Your task to perform on an android device: set default search engine in the chrome app Image 0: 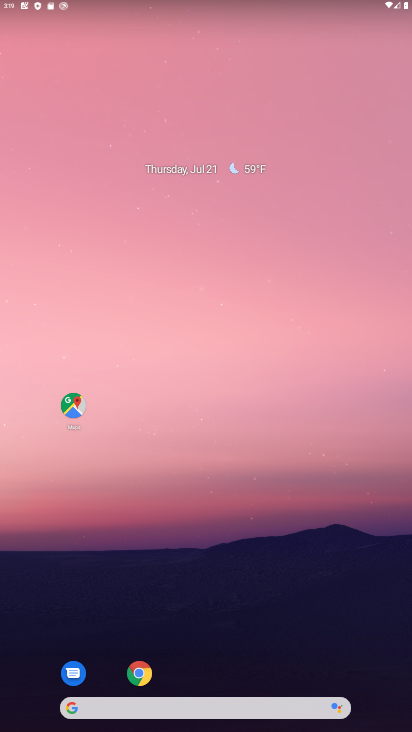
Step 0: click (140, 673)
Your task to perform on an android device: set default search engine in the chrome app Image 1: 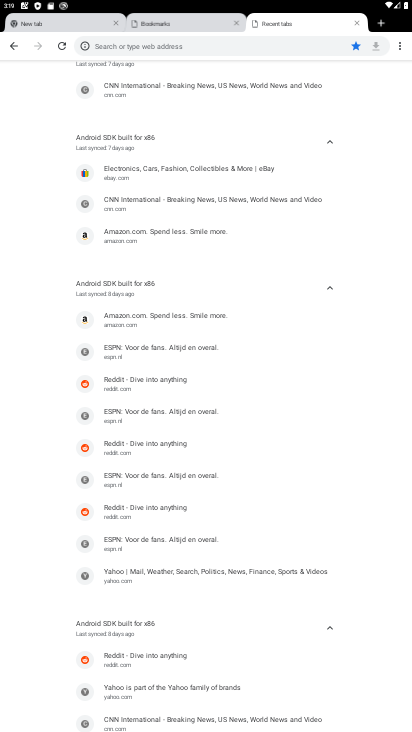
Step 1: click (398, 50)
Your task to perform on an android device: set default search engine in the chrome app Image 2: 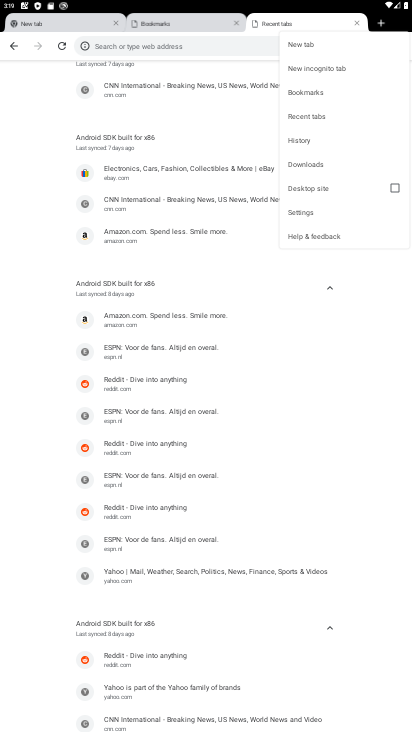
Step 2: click (295, 210)
Your task to perform on an android device: set default search engine in the chrome app Image 3: 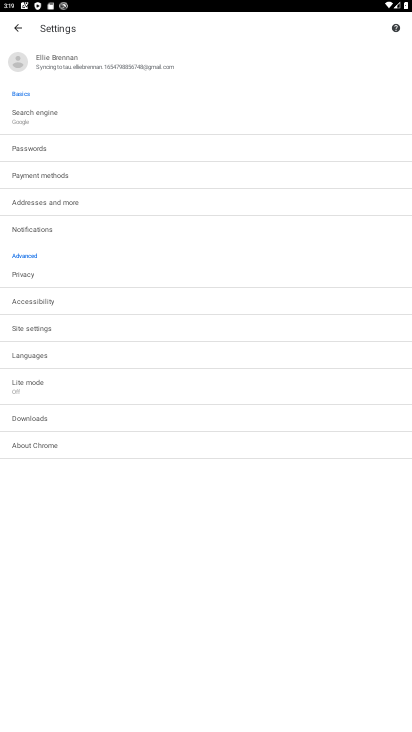
Step 3: click (29, 116)
Your task to perform on an android device: set default search engine in the chrome app Image 4: 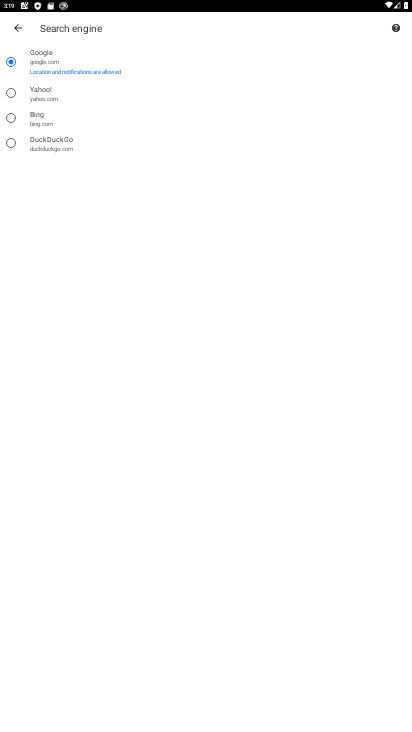
Step 4: click (6, 94)
Your task to perform on an android device: set default search engine in the chrome app Image 5: 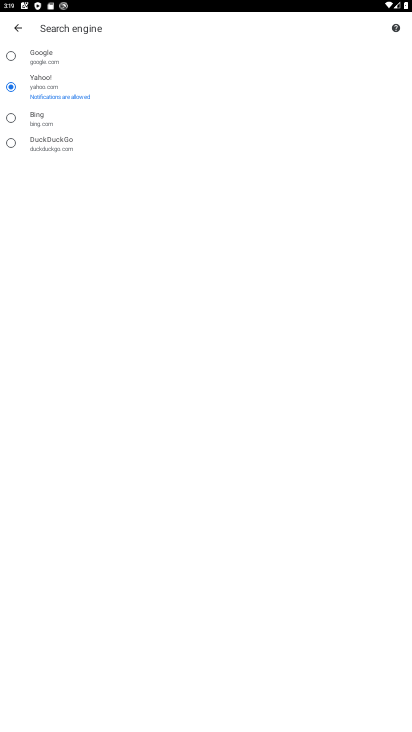
Step 5: task complete